Your task to perform on an android device: Go to Reddit.com Image 0: 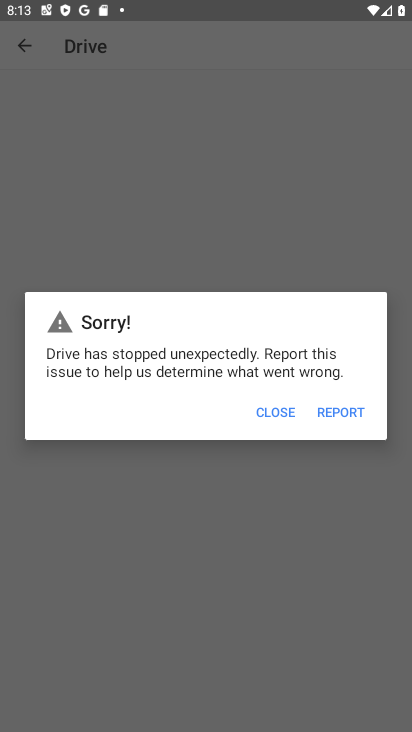
Step 0: press home button
Your task to perform on an android device: Go to Reddit.com Image 1: 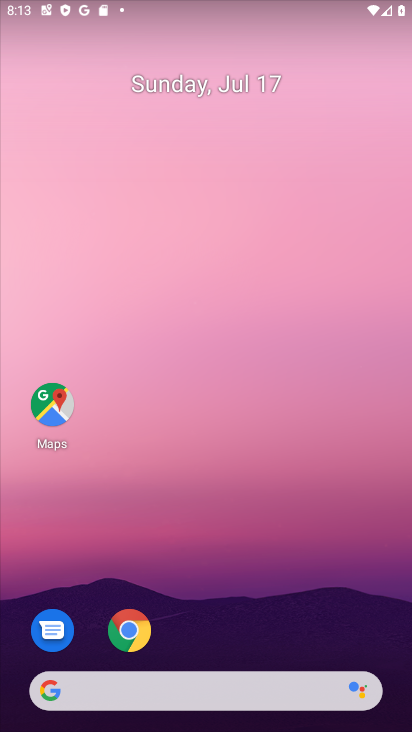
Step 1: drag from (210, 622) to (214, 151)
Your task to perform on an android device: Go to Reddit.com Image 2: 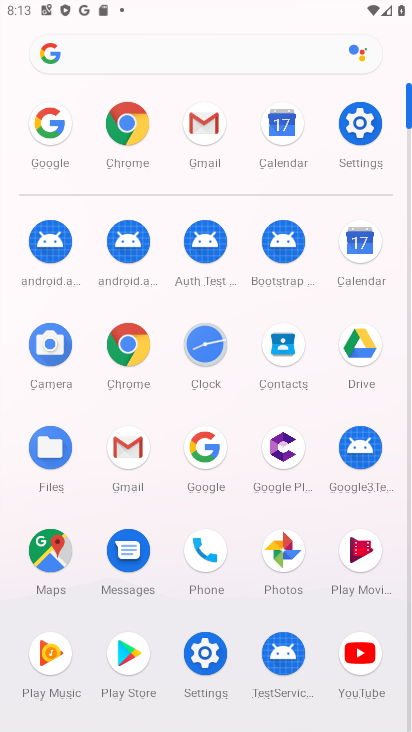
Step 2: click (126, 327)
Your task to perform on an android device: Go to Reddit.com Image 3: 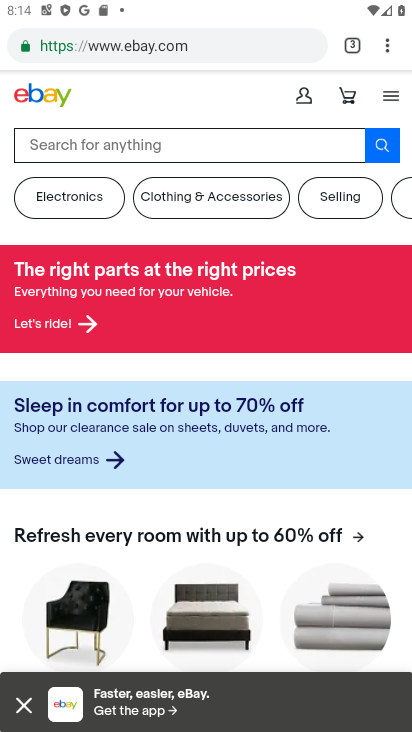
Step 3: click (159, 39)
Your task to perform on an android device: Go to Reddit.com Image 4: 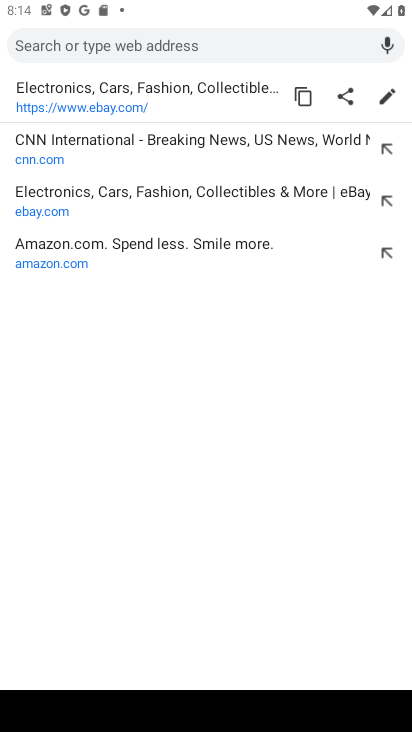
Step 4: type "www.reddit.com"
Your task to perform on an android device: Go to Reddit.com Image 5: 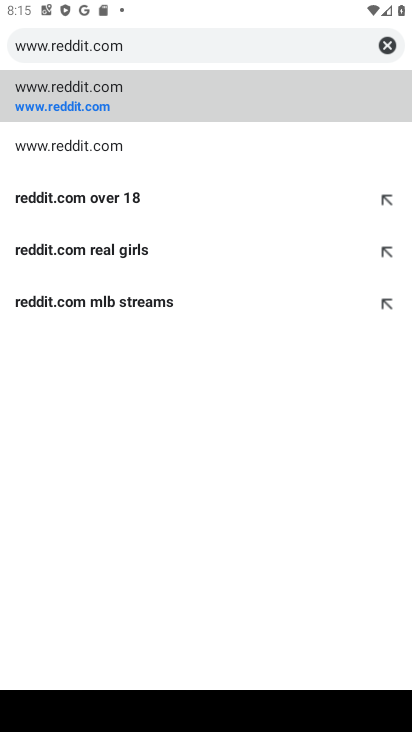
Step 5: click (56, 104)
Your task to perform on an android device: Go to Reddit.com Image 6: 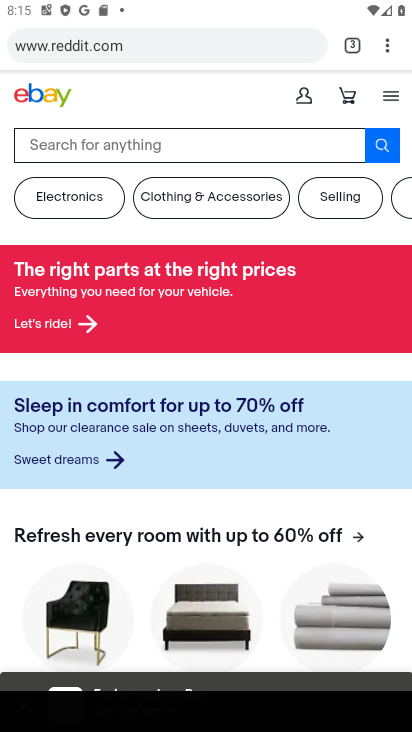
Step 6: click (106, 106)
Your task to perform on an android device: Go to Reddit.com Image 7: 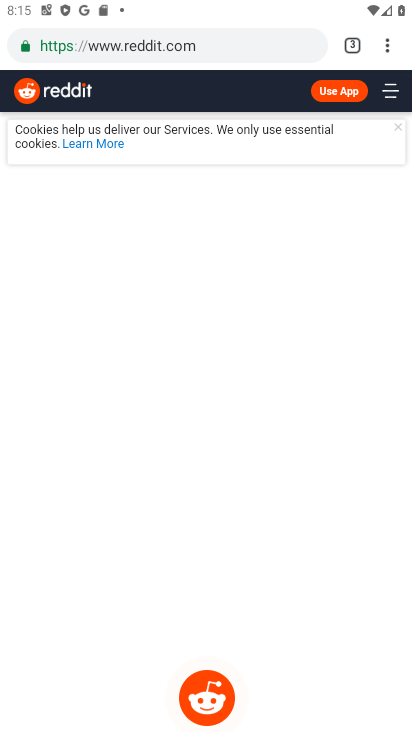
Step 7: task complete